Your task to perform on an android device: open app "YouTube Kids" Image 0: 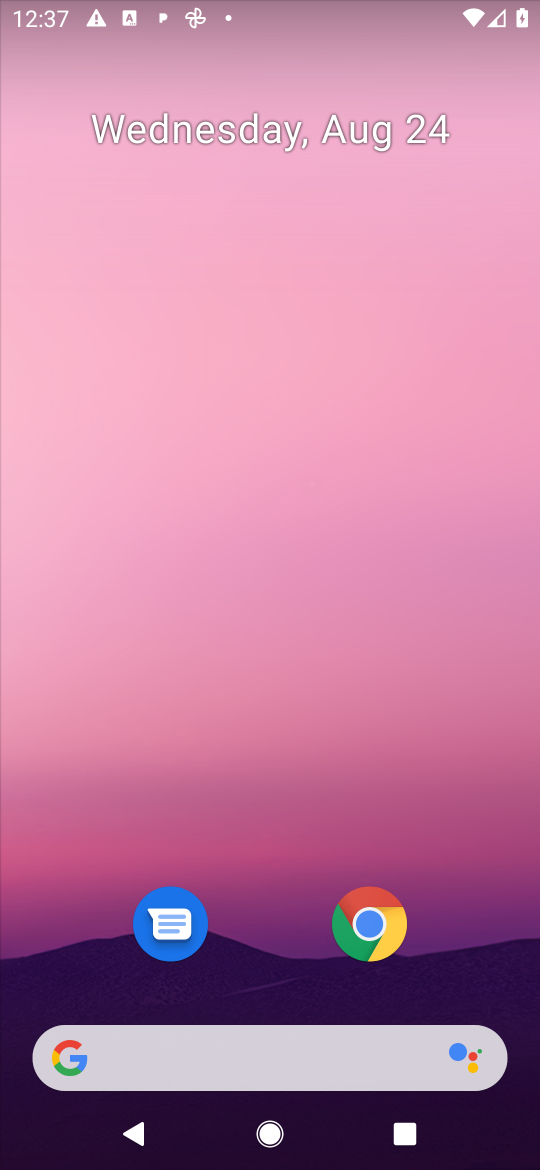
Step 0: press home button
Your task to perform on an android device: open app "YouTube Kids" Image 1: 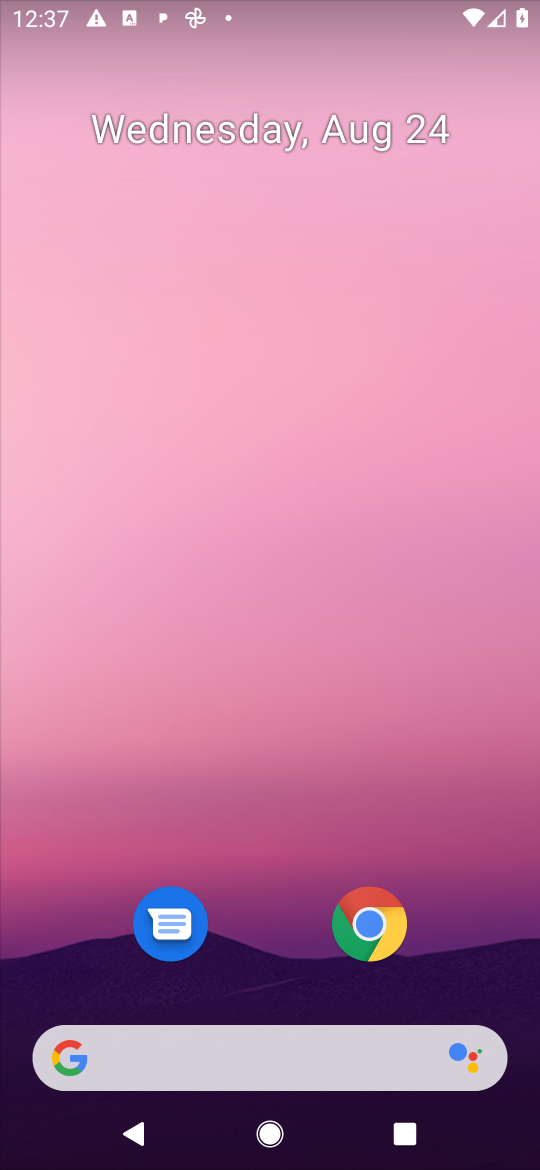
Step 1: drag from (444, 937) to (457, 130)
Your task to perform on an android device: open app "YouTube Kids" Image 2: 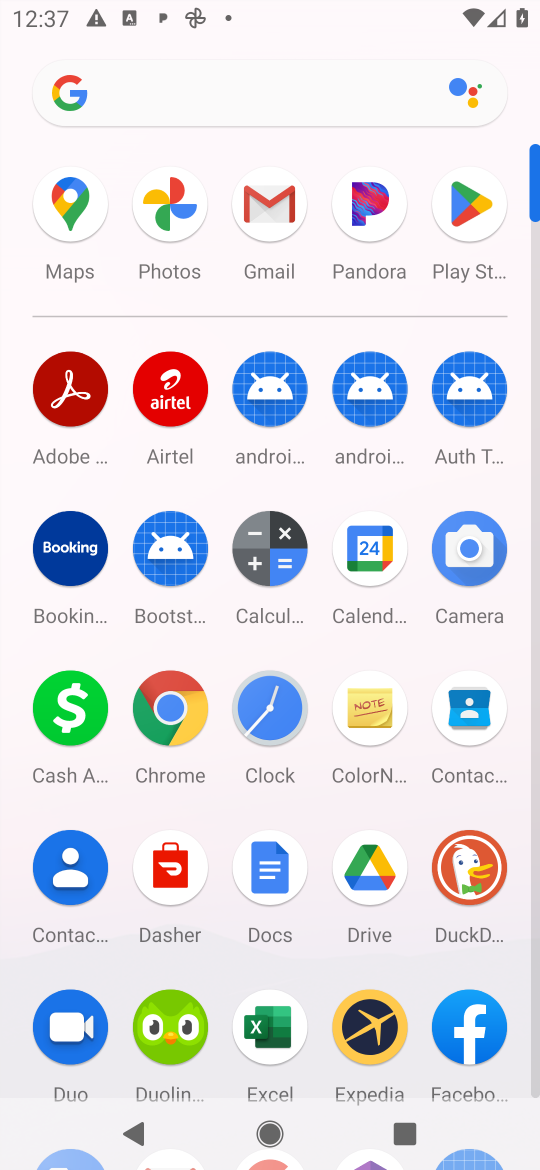
Step 2: click (473, 210)
Your task to perform on an android device: open app "YouTube Kids" Image 3: 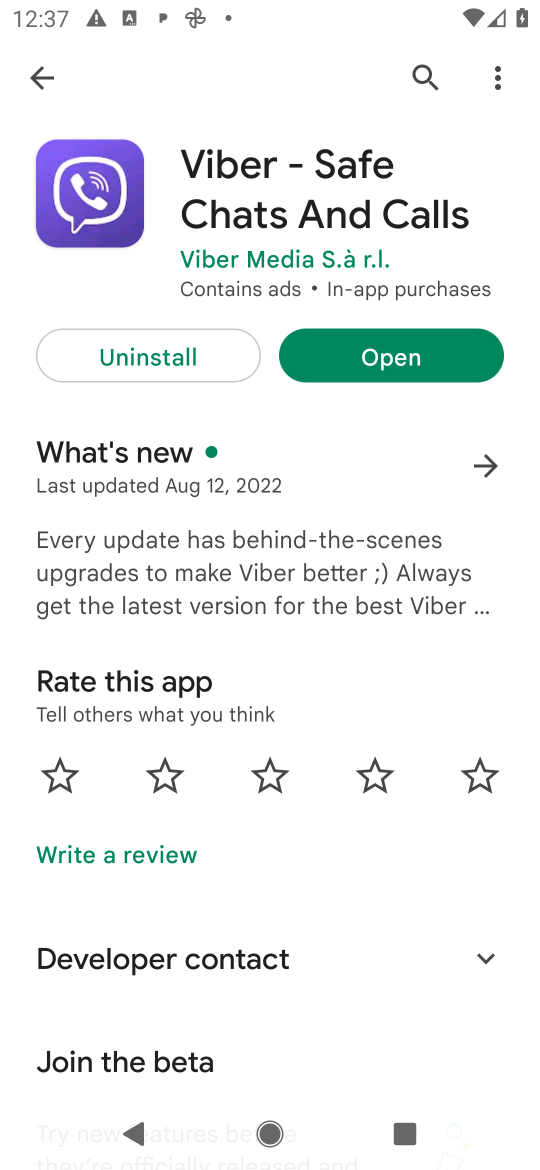
Step 3: press back button
Your task to perform on an android device: open app "YouTube Kids" Image 4: 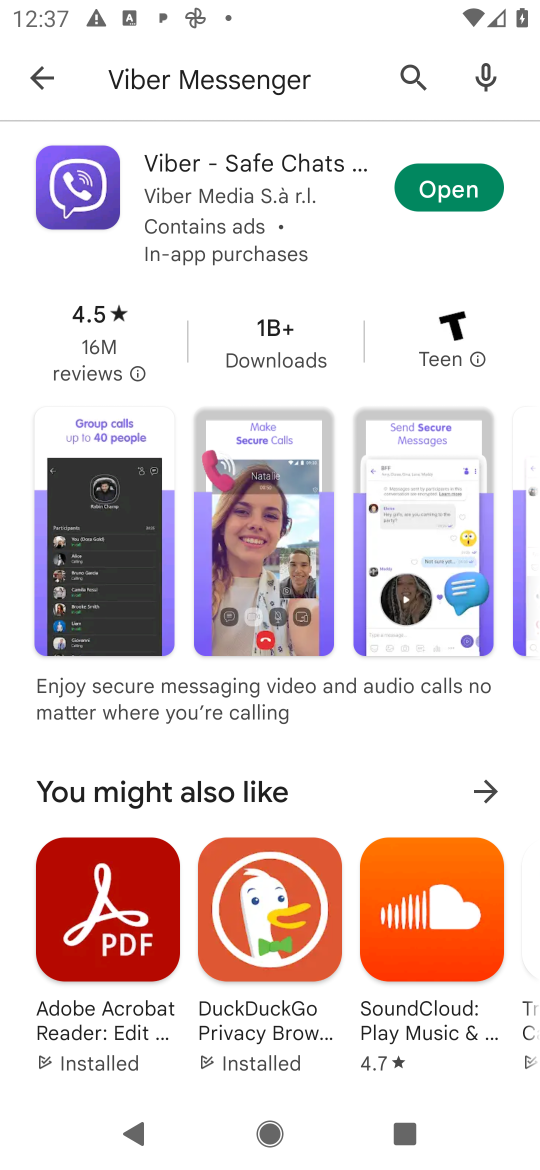
Step 4: press back button
Your task to perform on an android device: open app "YouTube Kids" Image 5: 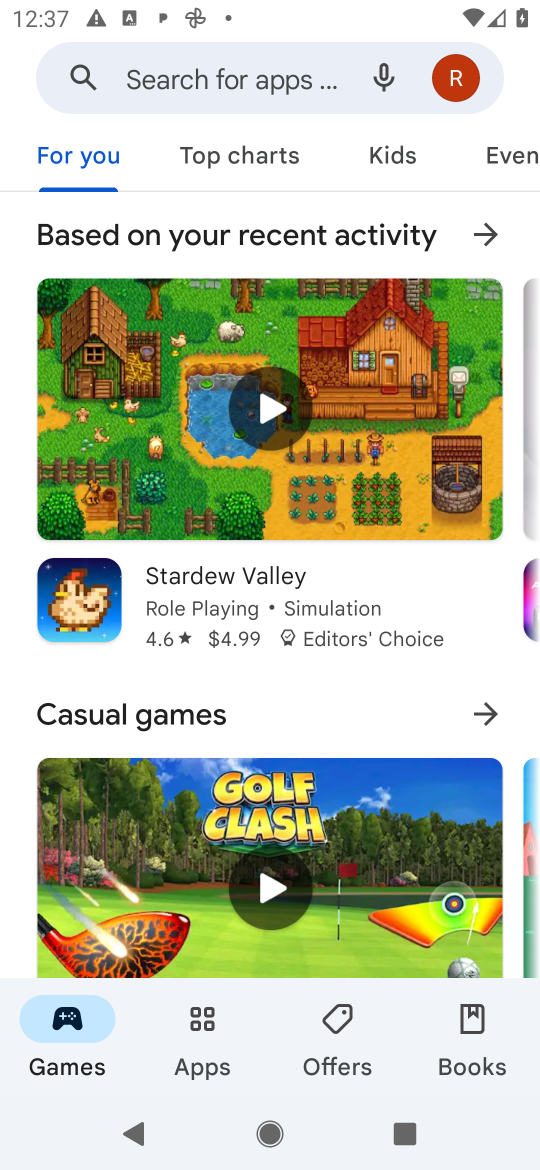
Step 5: click (311, 75)
Your task to perform on an android device: open app "YouTube Kids" Image 6: 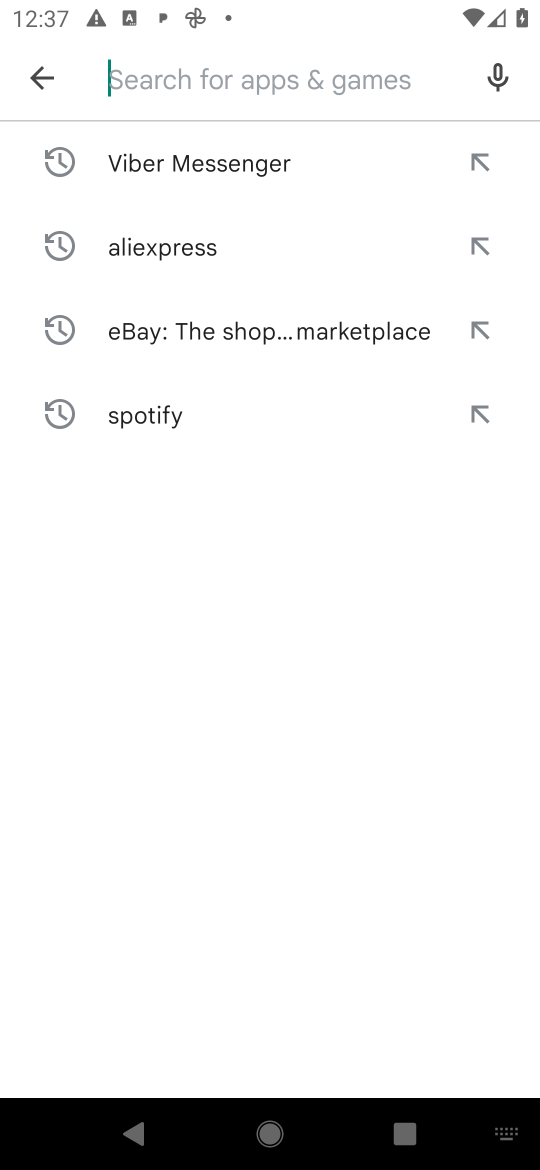
Step 6: type "YouTube Kids"
Your task to perform on an android device: open app "YouTube Kids" Image 7: 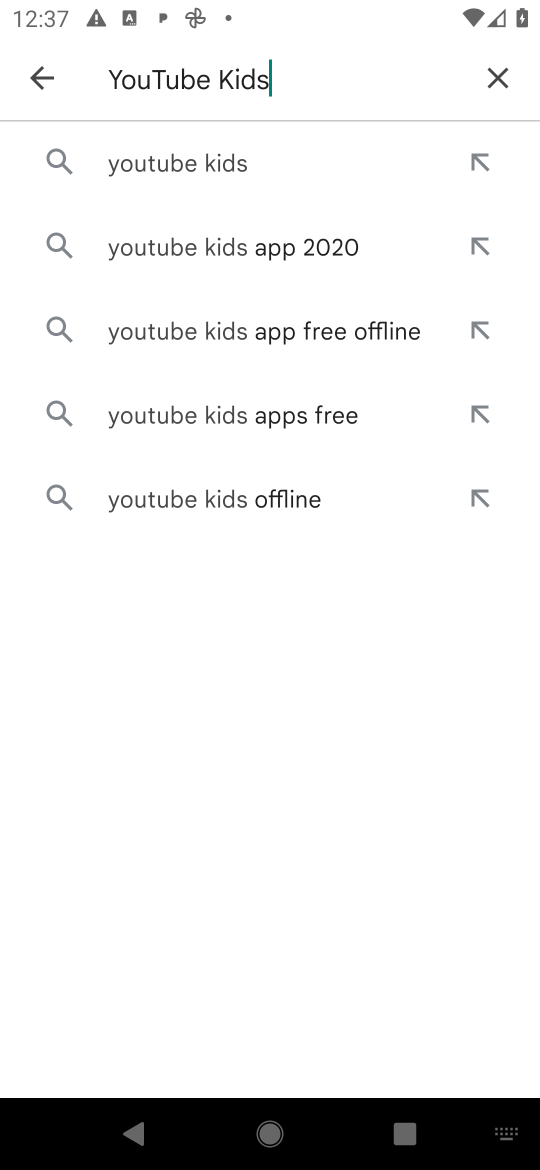
Step 7: press enter
Your task to perform on an android device: open app "YouTube Kids" Image 8: 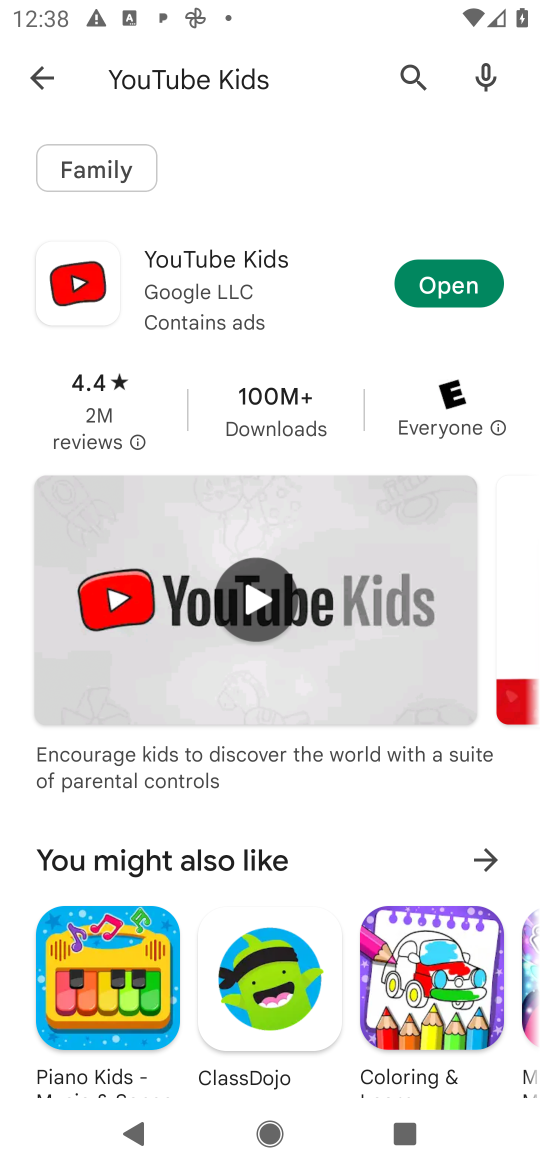
Step 8: click (470, 282)
Your task to perform on an android device: open app "YouTube Kids" Image 9: 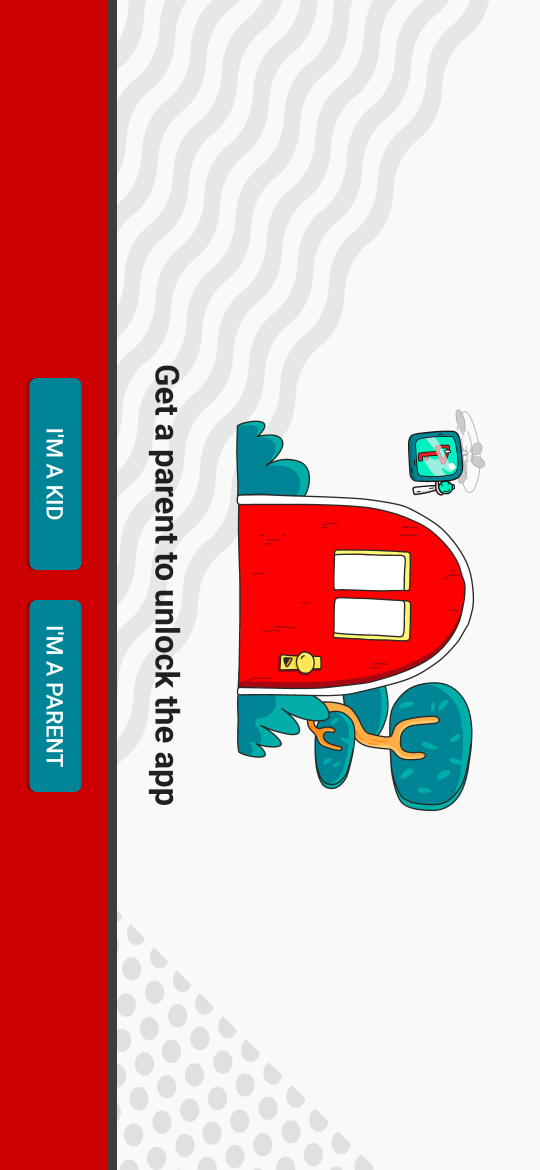
Step 9: task complete